Your task to perform on an android device: Search for seafood restaurants on Google Maps Image 0: 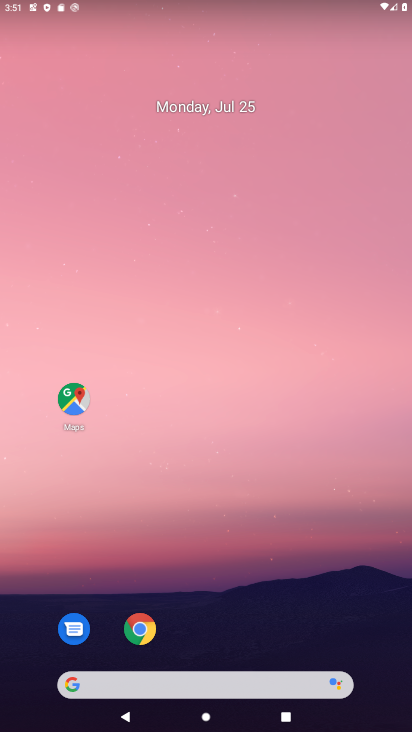
Step 0: drag from (195, 687) to (254, 306)
Your task to perform on an android device: Search for seafood restaurants on Google Maps Image 1: 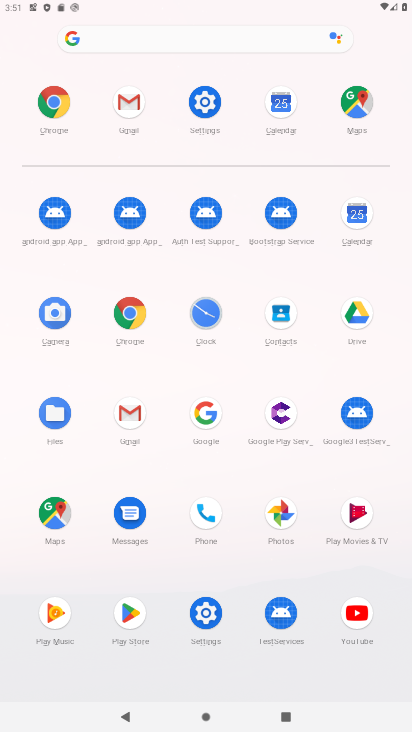
Step 1: click (48, 511)
Your task to perform on an android device: Search for seafood restaurants on Google Maps Image 2: 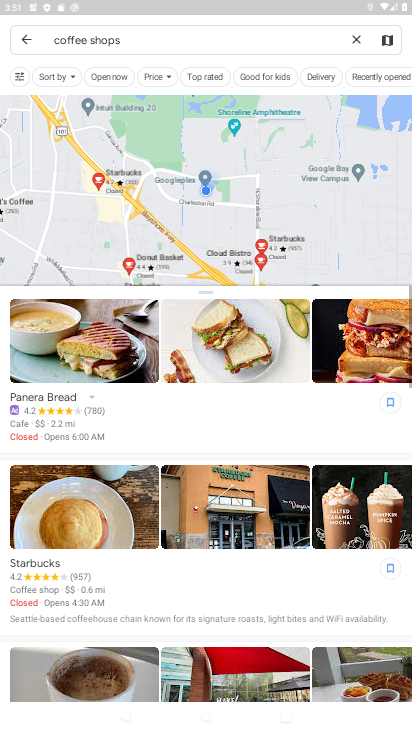
Step 2: click (357, 38)
Your task to perform on an android device: Search for seafood restaurants on Google Maps Image 3: 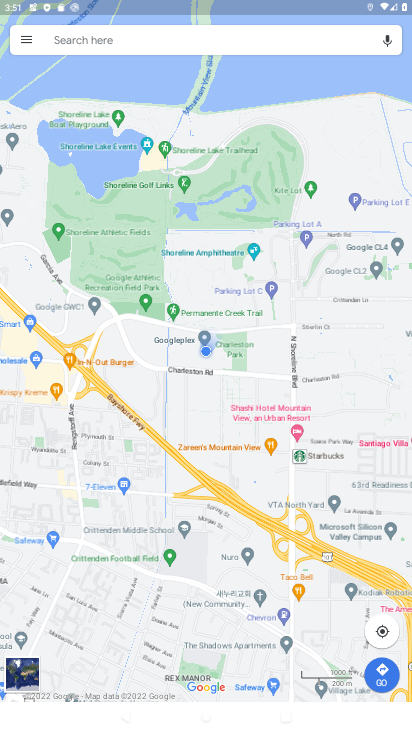
Step 3: click (253, 32)
Your task to perform on an android device: Search for seafood restaurants on Google Maps Image 4: 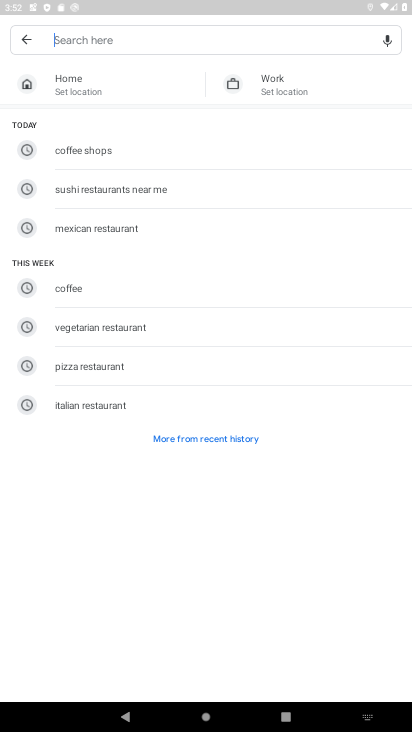
Step 4: type "seafood res"
Your task to perform on an android device: Search for seafood restaurants on Google Maps Image 5: 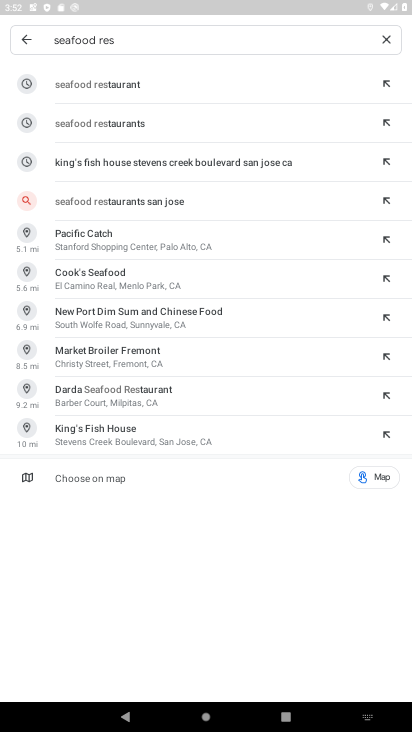
Step 5: click (156, 75)
Your task to perform on an android device: Search for seafood restaurants on Google Maps Image 6: 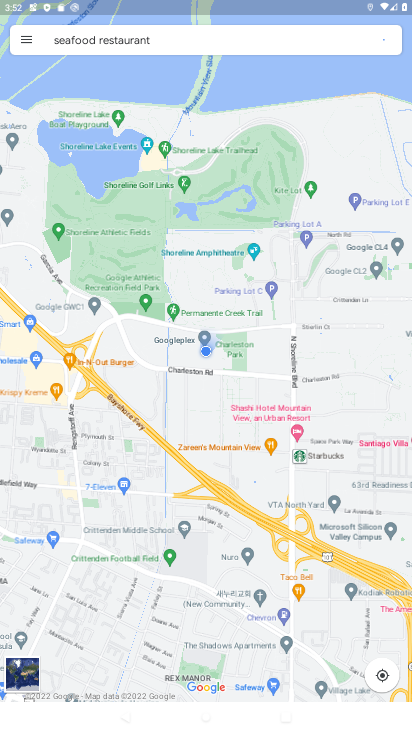
Step 6: task complete